Your task to perform on an android device: turn off priority inbox in the gmail app Image 0: 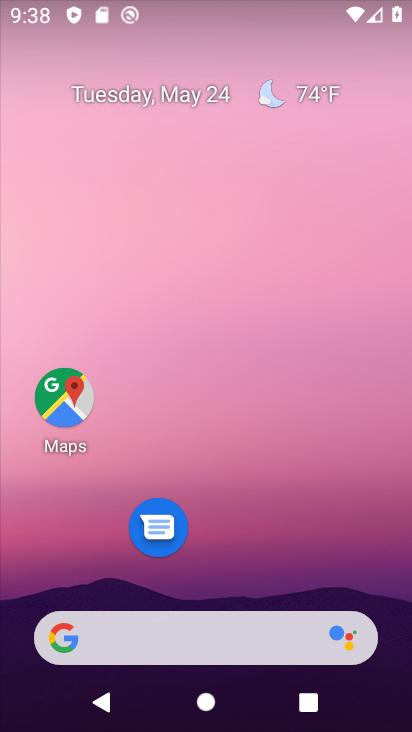
Step 0: drag from (185, 580) to (105, 187)
Your task to perform on an android device: turn off priority inbox in the gmail app Image 1: 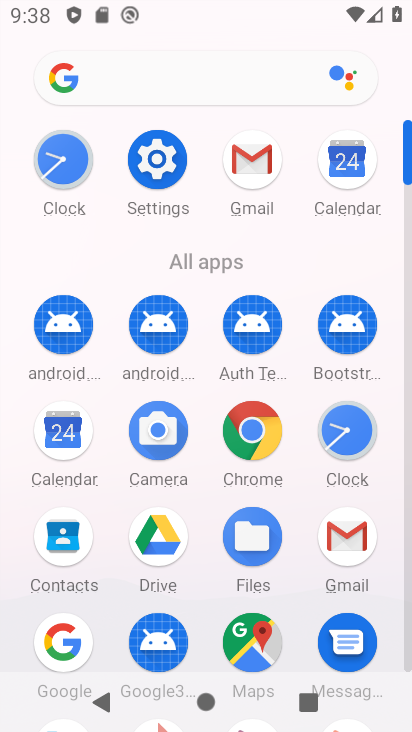
Step 1: click (351, 542)
Your task to perform on an android device: turn off priority inbox in the gmail app Image 2: 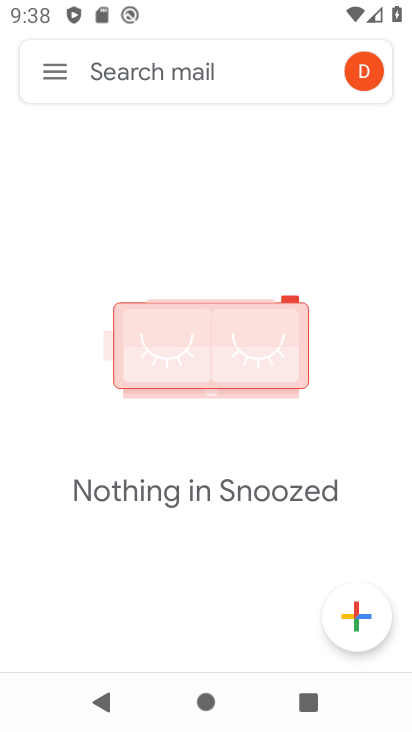
Step 2: click (39, 69)
Your task to perform on an android device: turn off priority inbox in the gmail app Image 3: 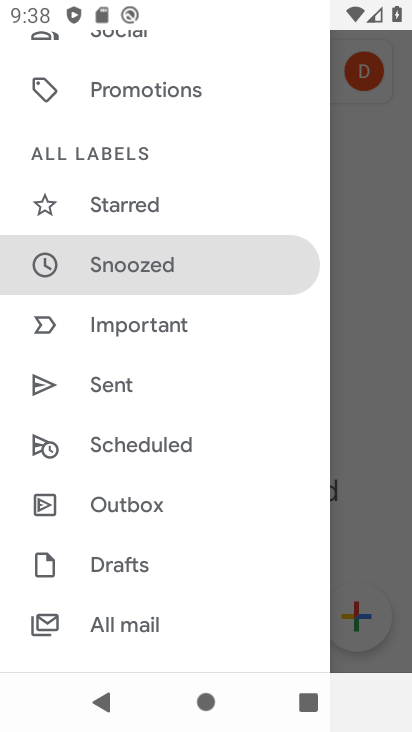
Step 3: drag from (149, 563) to (114, 124)
Your task to perform on an android device: turn off priority inbox in the gmail app Image 4: 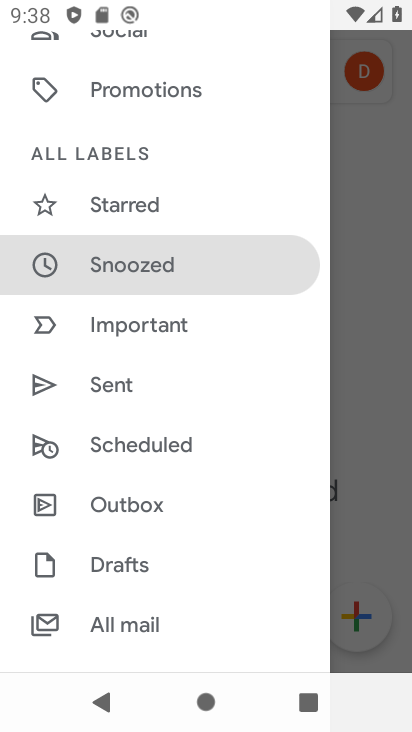
Step 4: drag from (175, 508) to (172, 133)
Your task to perform on an android device: turn off priority inbox in the gmail app Image 5: 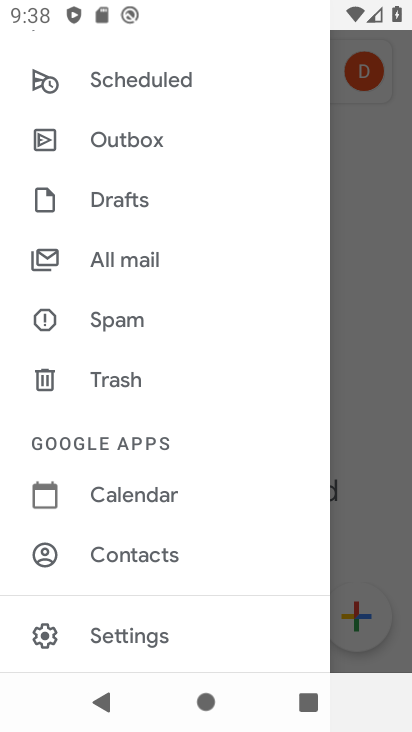
Step 5: click (111, 638)
Your task to perform on an android device: turn off priority inbox in the gmail app Image 6: 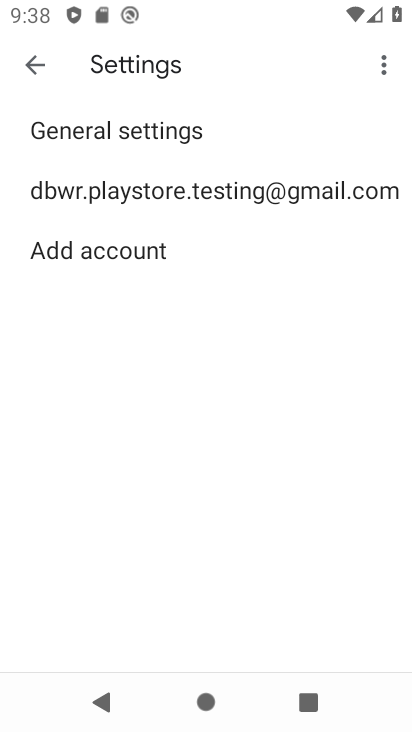
Step 6: click (80, 178)
Your task to perform on an android device: turn off priority inbox in the gmail app Image 7: 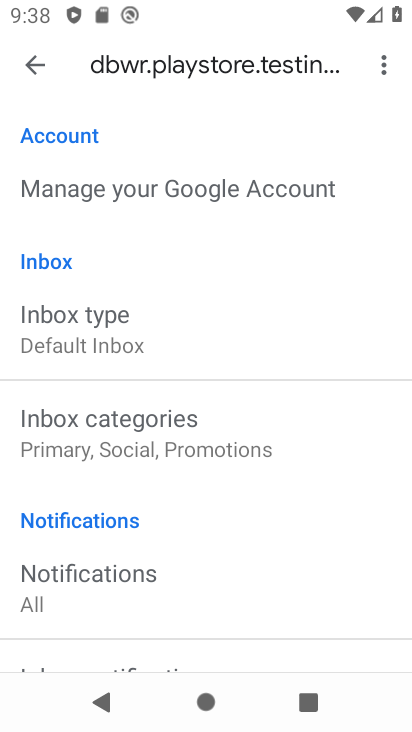
Step 7: drag from (212, 588) to (164, 120)
Your task to perform on an android device: turn off priority inbox in the gmail app Image 8: 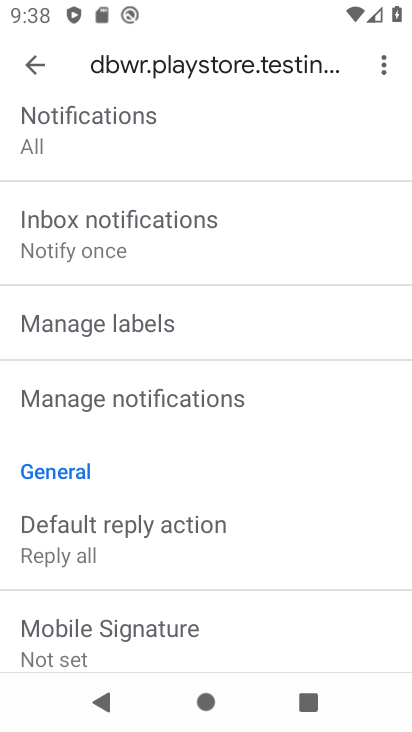
Step 8: drag from (283, 649) to (273, 219)
Your task to perform on an android device: turn off priority inbox in the gmail app Image 9: 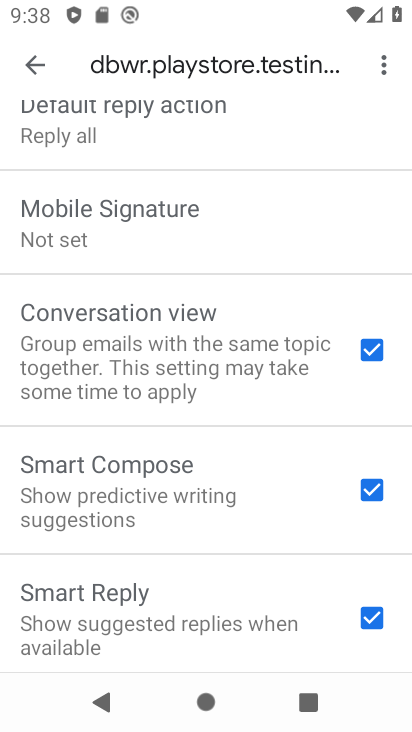
Step 9: drag from (186, 561) to (126, 244)
Your task to perform on an android device: turn off priority inbox in the gmail app Image 10: 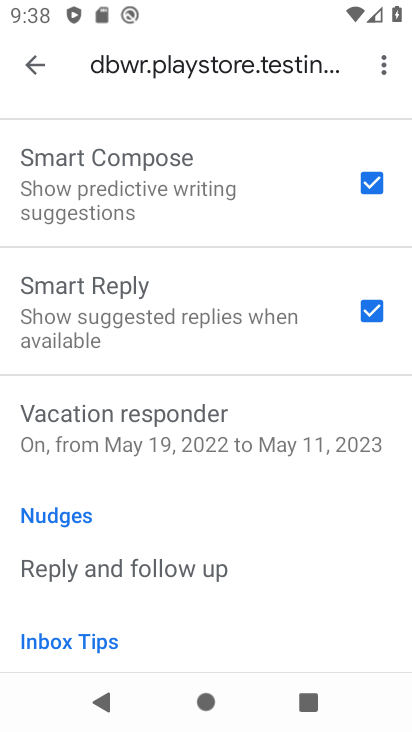
Step 10: drag from (167, 225) to (232, 654)
Your task to perform on an android device: turn off priority inbox in the gmail app Image 11: 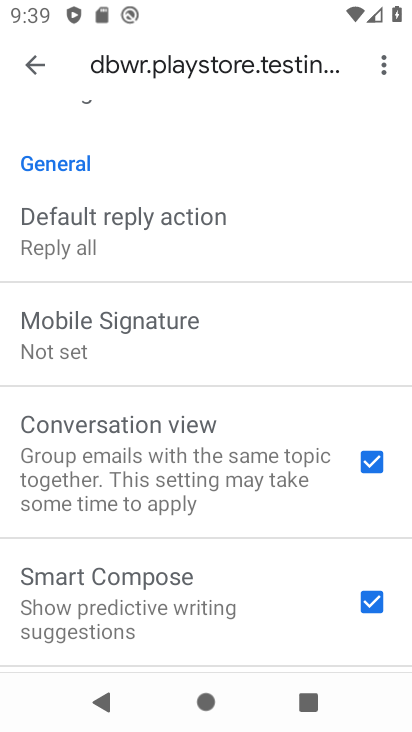
Step 11: drag from (207, 179) to (255, 567)
Your task to perform on an android device: turn off priority inbox in the gmail app Image 12: 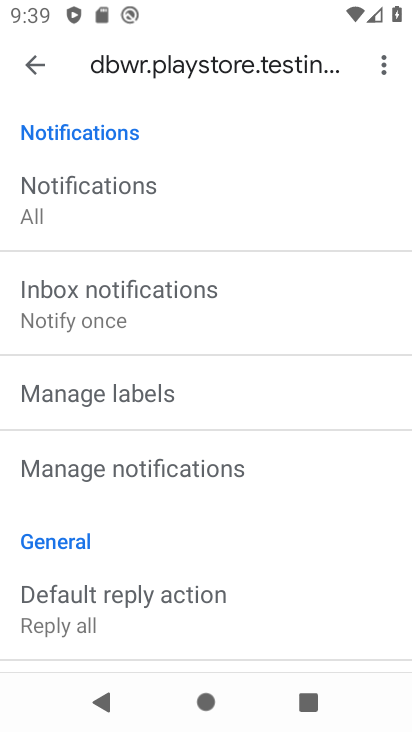
Step 12: drag from (179, 208) to (142, 535)
Your task to perform on an android device: turn off priority inbox in the gmail app Image 13: 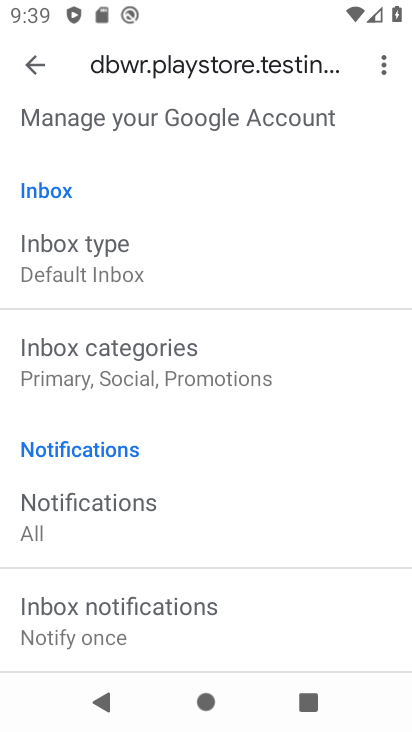
Step 13: click (80, 245)
Your task to perform on an android device: turn off priority inbox in the gmail app Image 14: 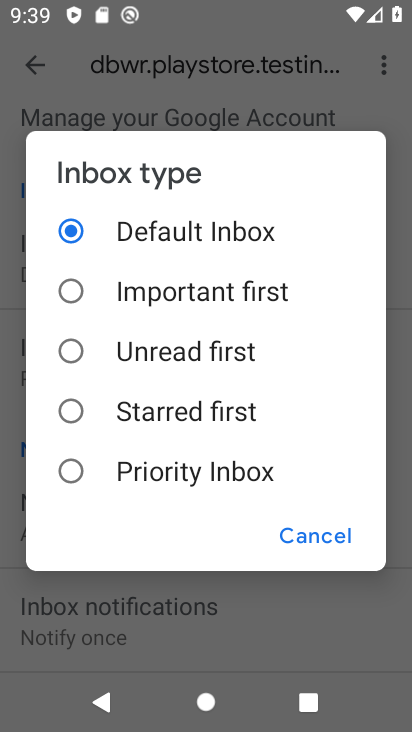
Step 14: task complete